Your task to perform on an android device: allow cookies in the chrome app Image 0: 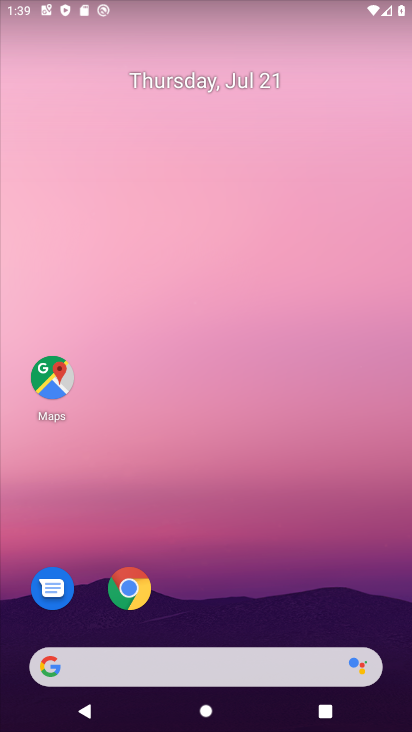
Step 0: drag from (204, 629) to (173, 3)
Your task to perform on an android device: allow cookies in the chrome app Image 1: 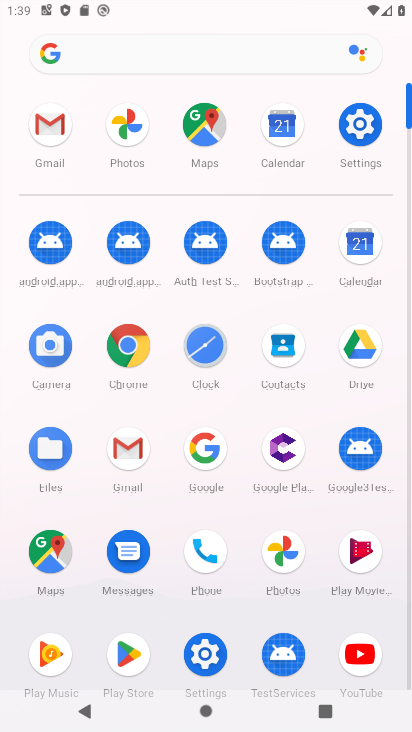
Step 1: click (146, 347)
Your task to perform on an android device: allow cookies in the chrome app Image 2: 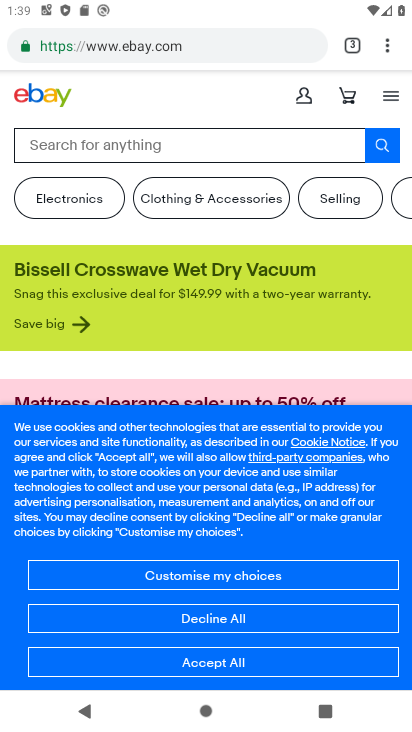
Step 2: click (383, 50)
Your task to perform on an android device: allow cookies in the chrome app Image 3: 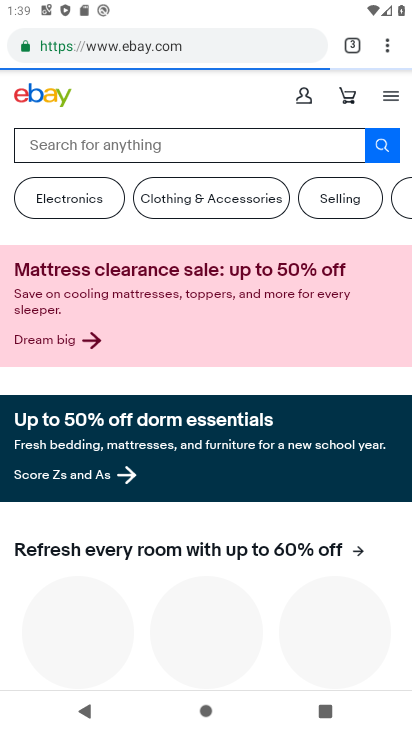
Step 3: click (382, 41)
Your task to perform on an android device: allow cookies in the chrome app Image 4: 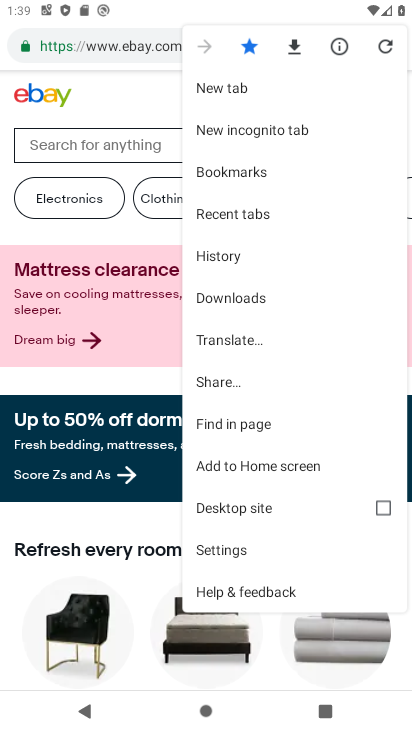
Step 4: click (218, 544)
Your task to perform on an android device: allow cookies in the chrome app Image 5: 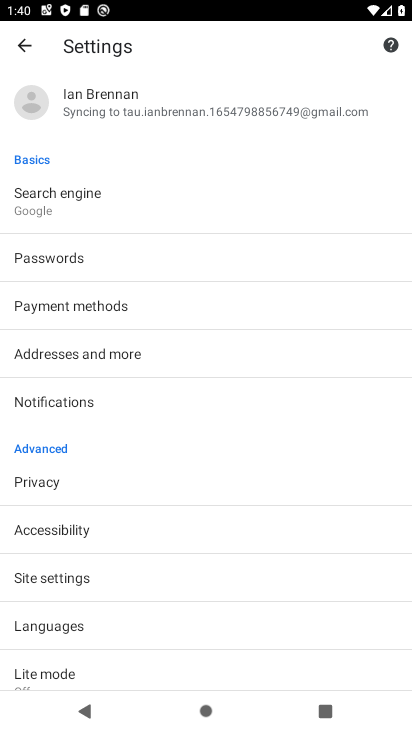
Step 5: drag from (119, 551) to (85, 31)
Your task to perform on an android device: allow cookies in the chrome app Image 6: 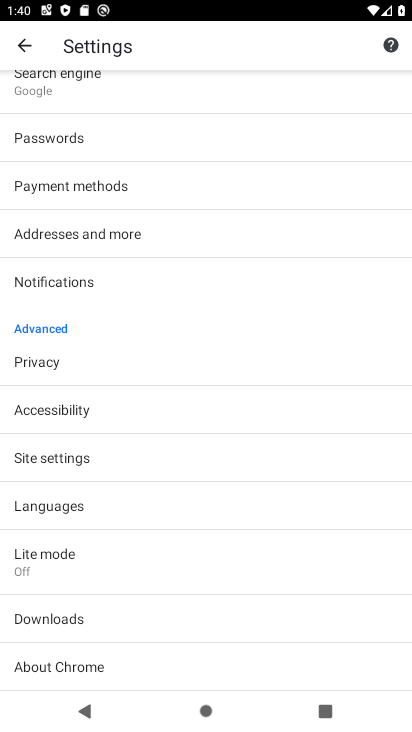
Step 6: click (87, 456)
Your task to perform on an android device: allow cookies in the chrome app Image 7: 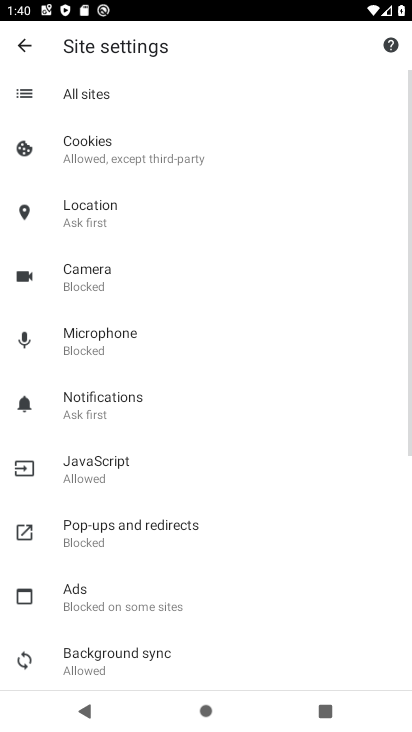
Step 7: click (44, 167)
Your task to perform on an android device: allow cookies in the chrome app Image 8: 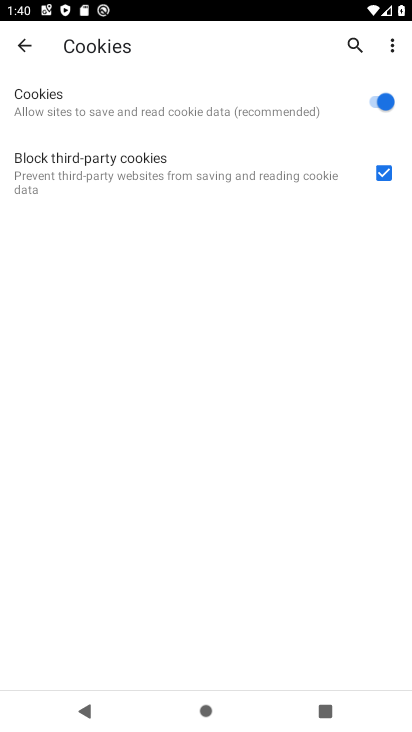
Step 8: task complete